Your task to perform on an android device: Open privacy settings Image 0: 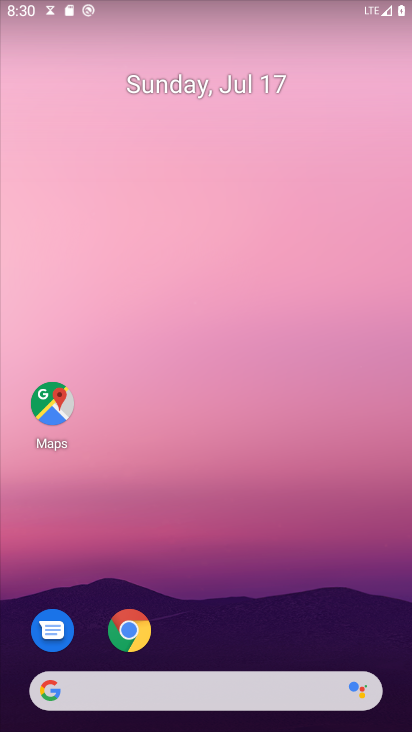
Step 0: drag from (217, 639) to (250, 20)
Your task to perform on an android device: Open privacy settings Image 1: 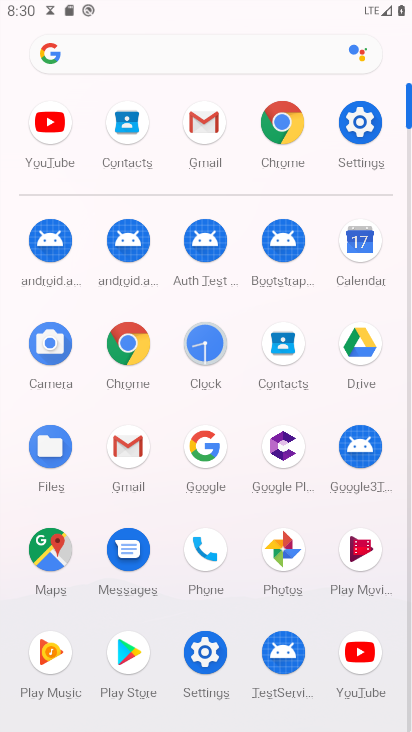
Step 1: click (204, 657)
Your task to perform on an android device: Open privacy settings Image 2: 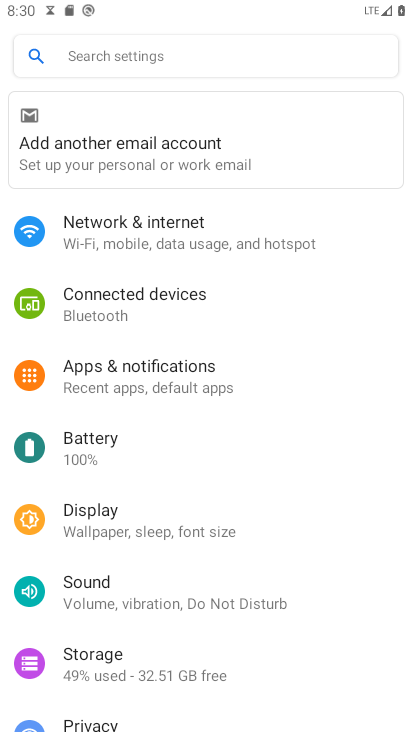
Step 2: drag from (161, 671) to (154, 426)
Your task to perform on an android device: Open privacy settings Image 3: 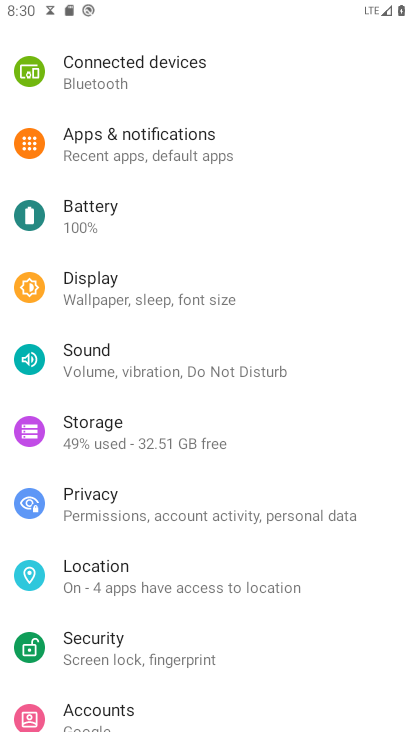
Step 3: click (125, 506)
Your task to perform on an android device: Open privacy settings Image 4: 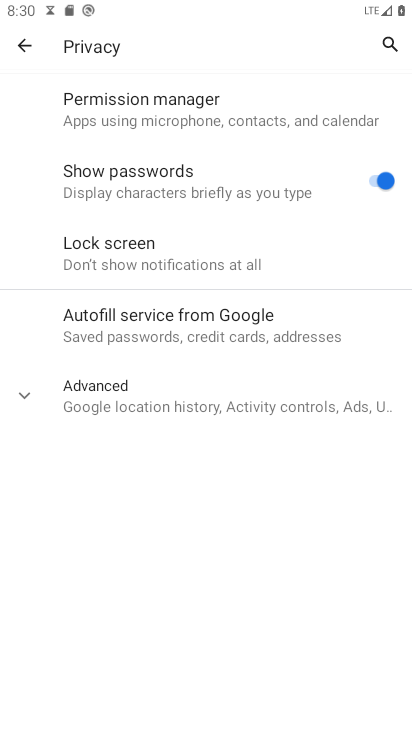
Step 4: task complete